Your task to perform on an android device: manage bookmarks in the chrome app Image 0: 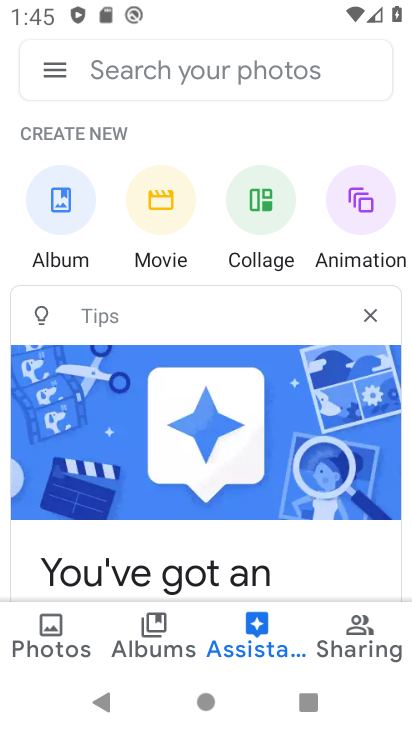
Step 0: press home button
Your task to perform on an android device: manage bookmarks in the chrome app Image 1: 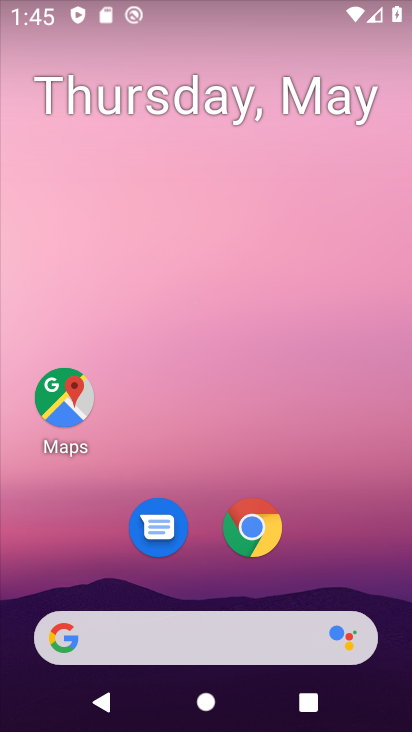
Step 1: click (262, 544)
Your task to perform on an android device: manage bookmarks in the chrome app Image 2: 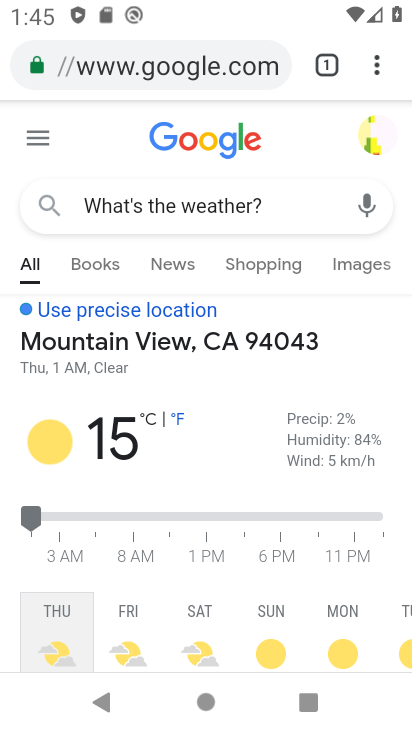
Step 2: task complete